Your task to perform on an android device: Go to Wikipedia Image 0: 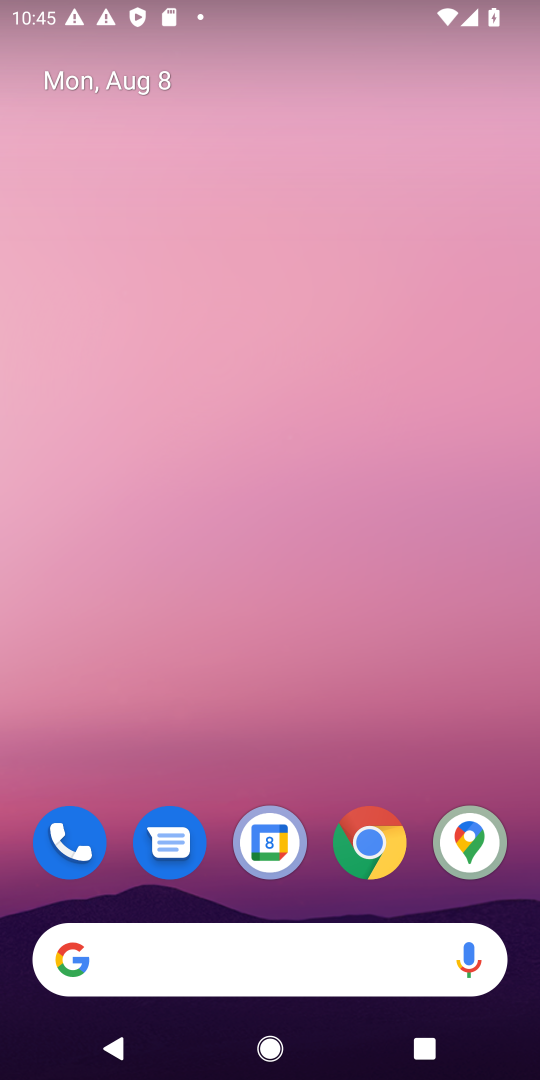
Step 0: click (381, 846)
Your task to perform on an android device: Go to Wikipedia Image 1: 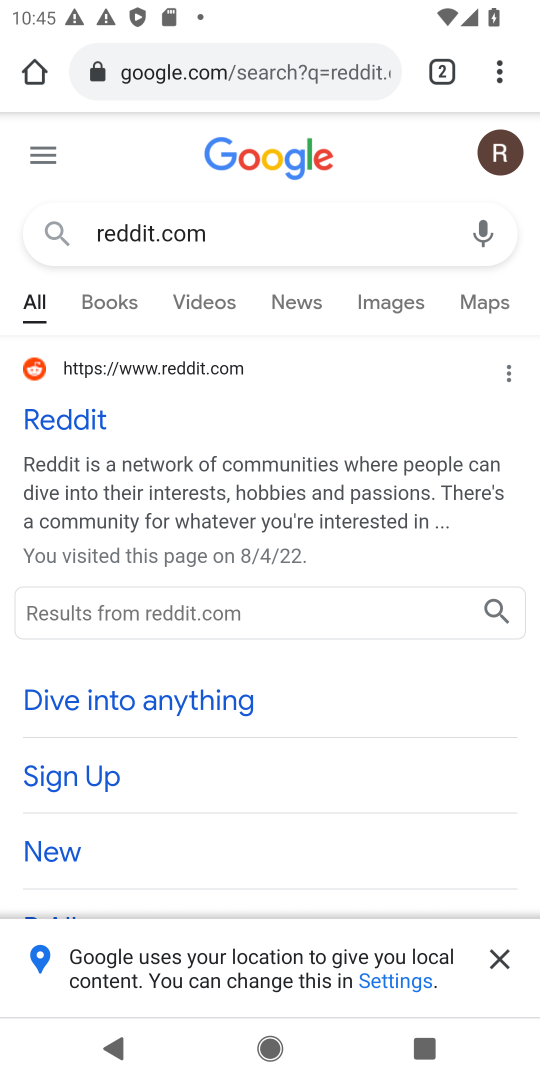
Step 1: click (453, 76)
Your task to perform on an android device: Go to Wikipedia Image 2: 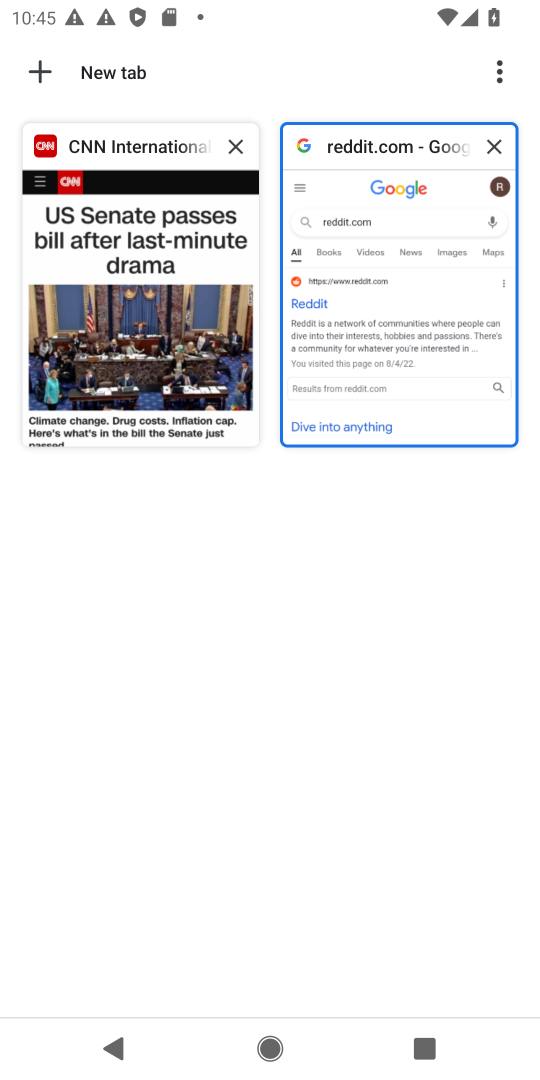
Step 2: click (36, 63)
Your task to perform on an android device: Go to Wikipedia Image 3: 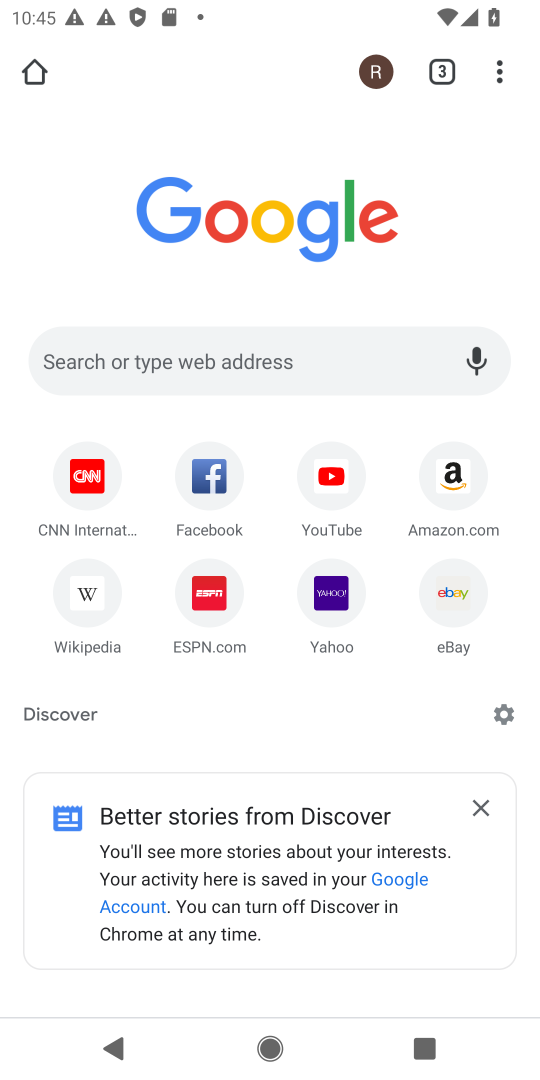
Step 3: click (84, 594)
Your task to perform on an android device: Go to Wikipedia Image 4: 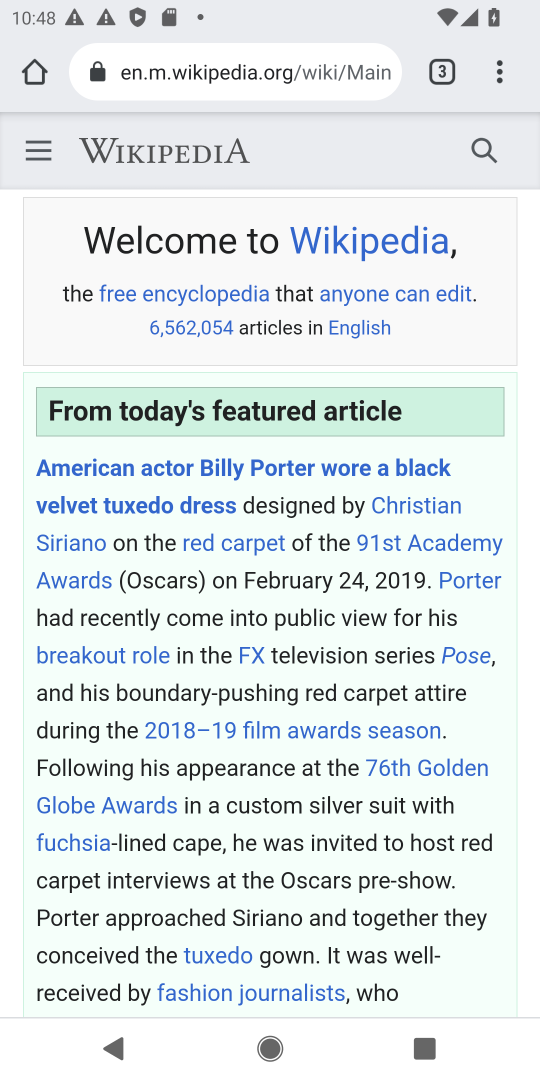
Step 4: task complete